Your task to perform on an android device: open wifi settings Image 0: 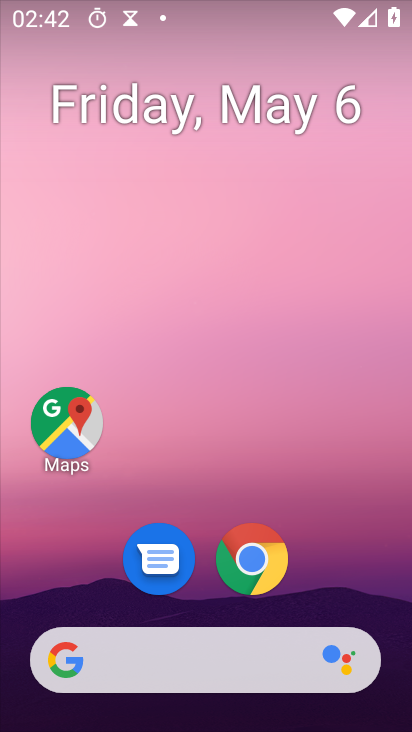
Step 0: drag from (265, 628) to (280, 62)
Your task to perform on an android device: open wifi settings Image 1: 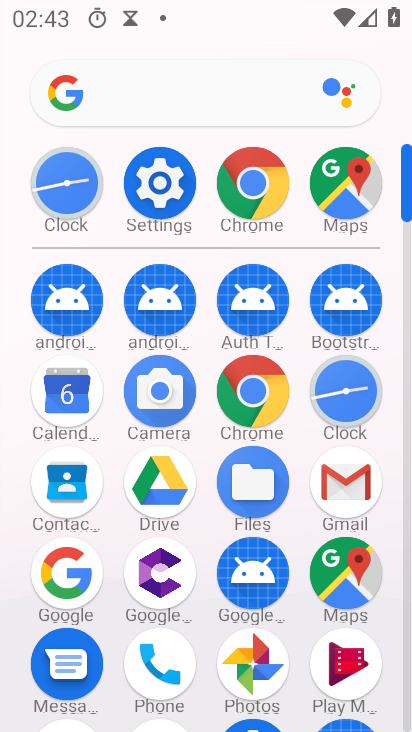
Step 1: click (177, 179)
Your task to perform on an android device: open wifi settings Image 2: 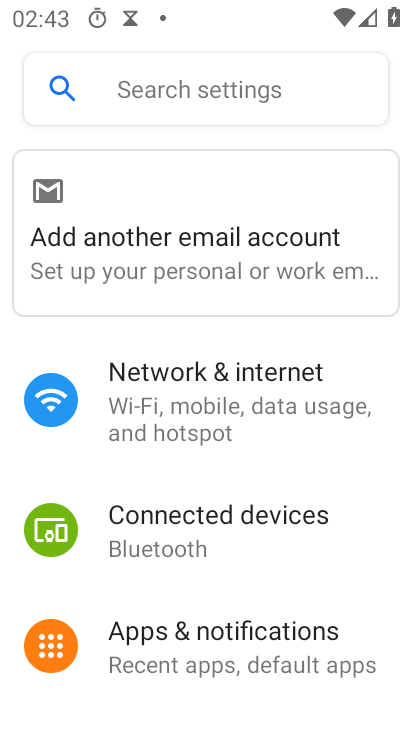
Step 2: click (259, 404)
Your task to perform on an android device: open wifi settings Image 3: 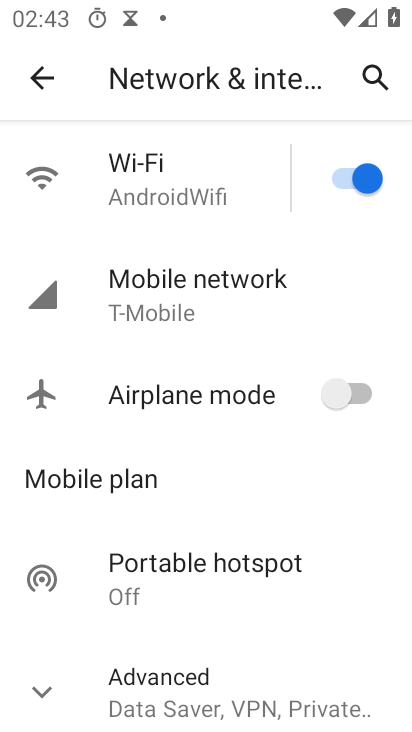
Step 3: click (222, 185)
Your task to perform on an android device: open wifi settings Image 4: 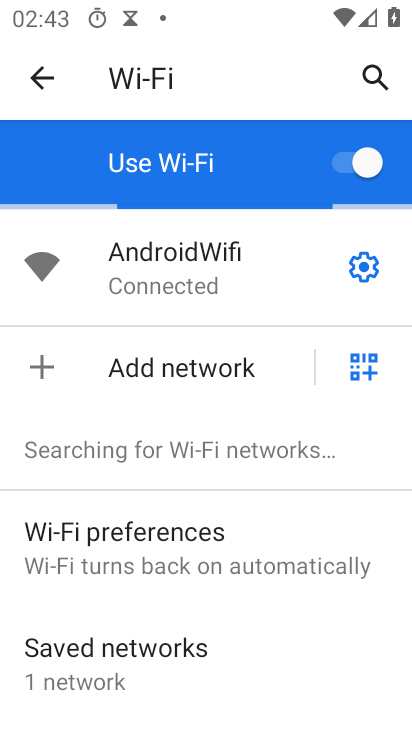
Step 4: task complete